Your task to perform on an android device: Go to privacy settings Image 0: 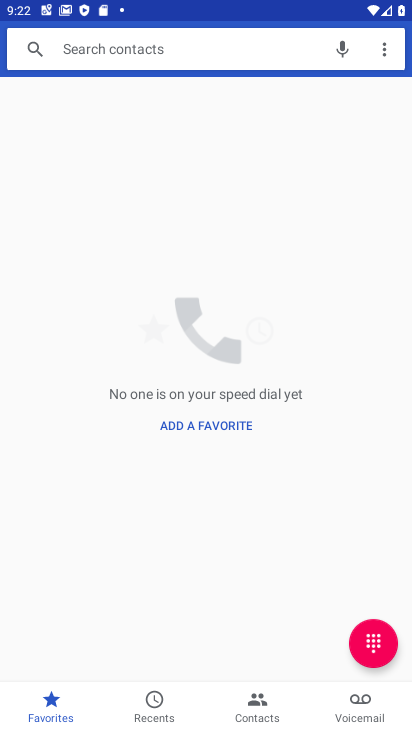
Step 0: press home button
Your task to perform on an android device: Go to privacy settings Image 1: 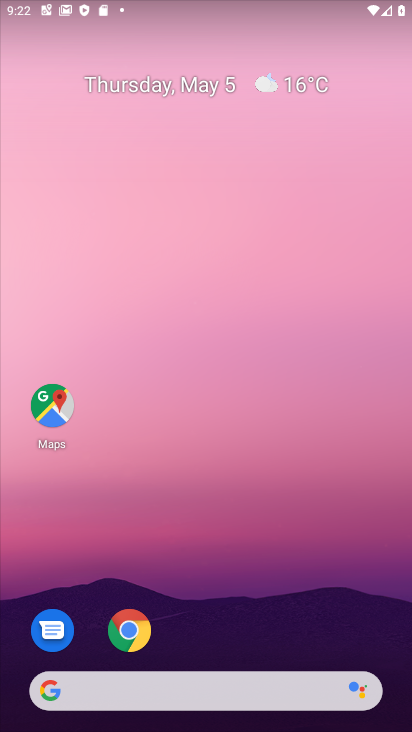
Step 1: drag from (292, 615) to (256, 94)
Your task to perform on an android device: Go to privacy settings Image 2: 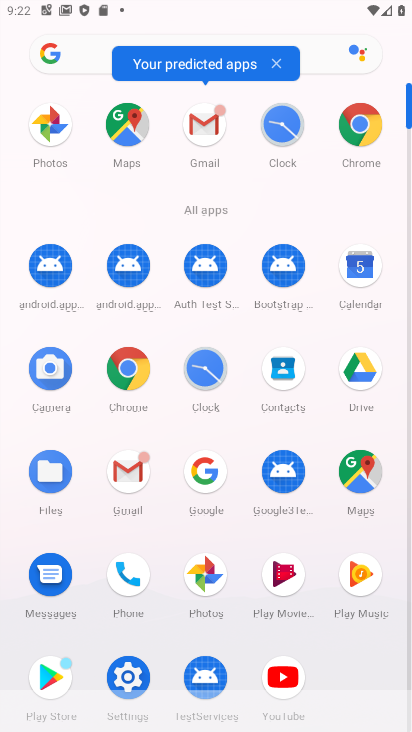
Step 2: click (127, 672)
Your task to perform on an android device: Go to privacy settings Image 3: 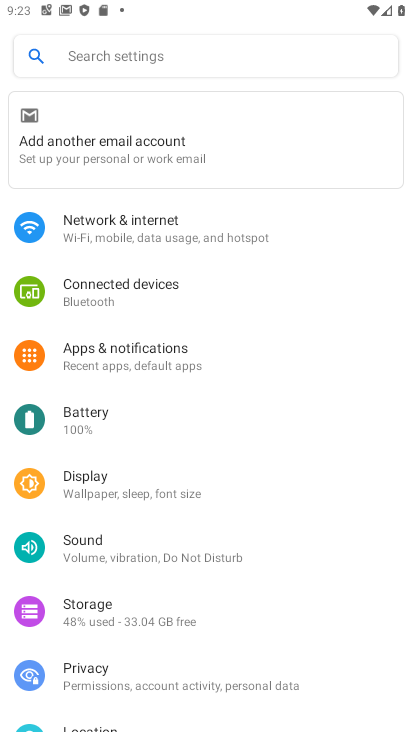
Step 3: click (108, 682)
Your task to perform on an android device: Go to privacy settings Image 4: 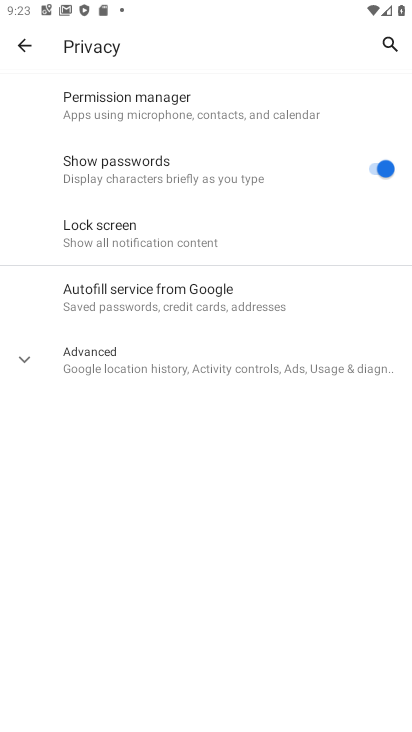
Step 4: task complete